Your task to perform on an android device: turn off notifications settings in the gmail app Image 0: 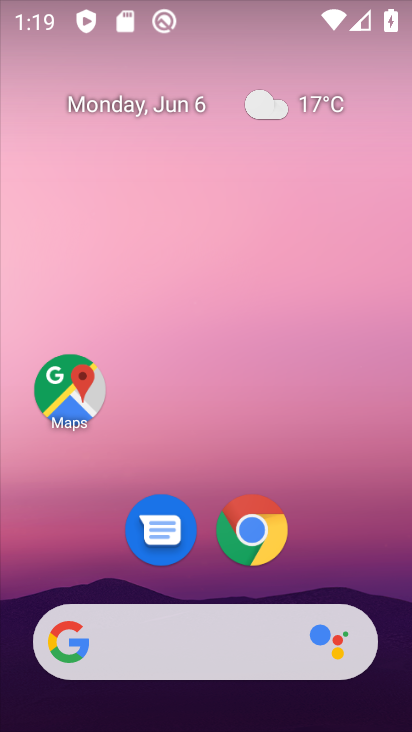
Step 0: drag from (287, 513) to (286, 242)
Your task to perform on an android device: turn off notifications settings in the gmail app Image 1: 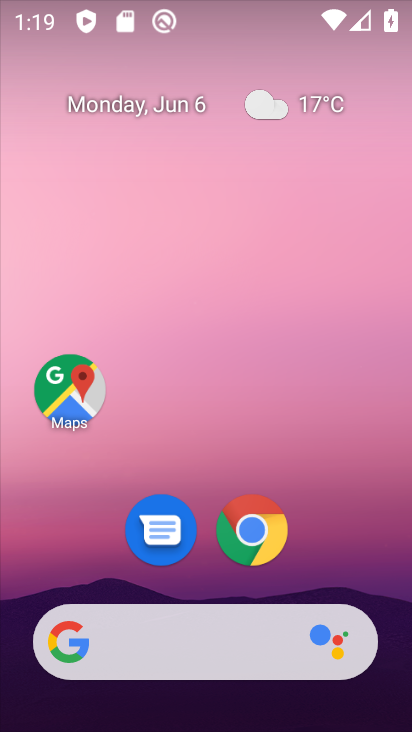
Step 1: drag from (201, 573) to (265, 247)
Your task to perform on an android device: turn off notifications settings in the gmail app Image 2: 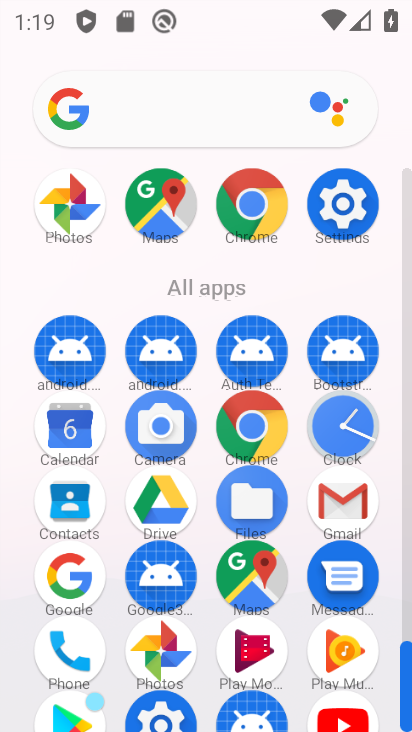
Step 2: click (321, 500)
Your task to perform on an android device: turn off notifications settings in the gmail app Image 3: 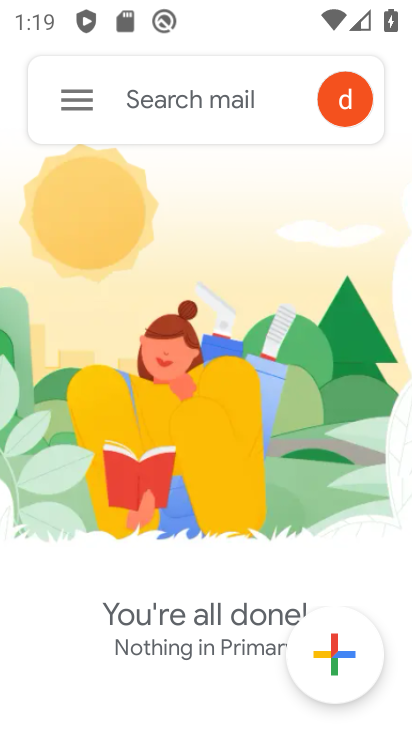
Step 3: click (69, 85)
Your task to perform on an android device: turn off notifications settings in the gmail app Image 4: 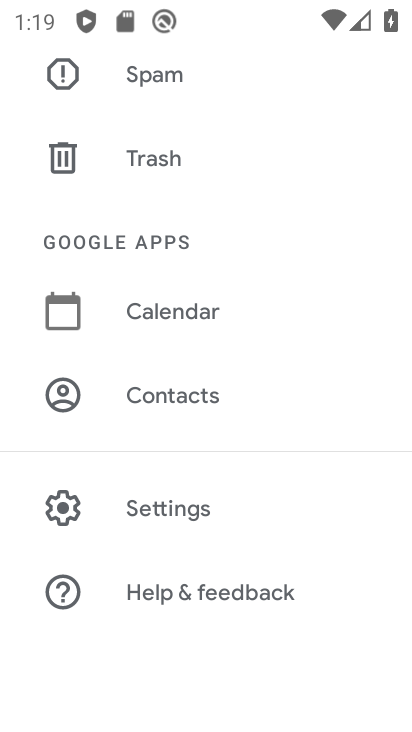
Step 4: click (219, 506)
Your task to perform on an android device: turn off notifications settings in the gmail app Image 5: 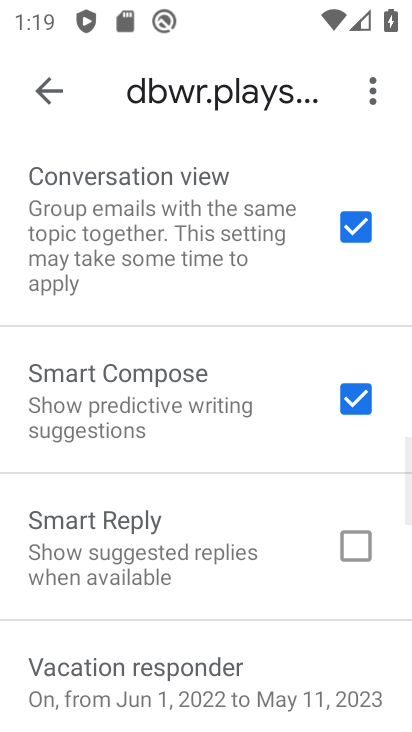
Step 5: drag from (177, 161) to (135, 605)
Your task to perform on an android device: turn off notifications settings in the gmail app Image 6: 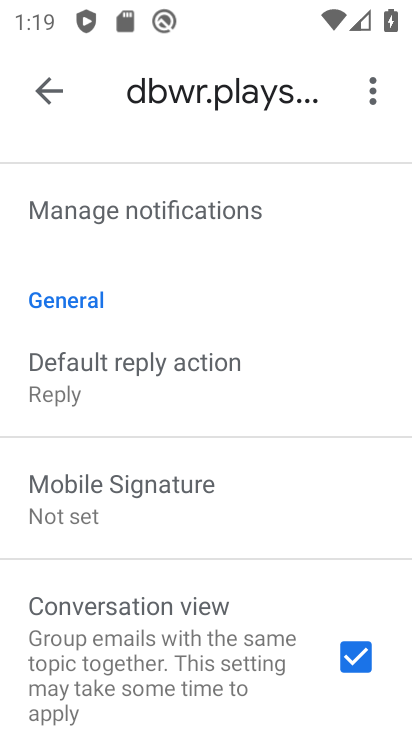
Step 6: drag from (166, 270) to (125, 663)
Your task to perform on an android device: turn off notifications settings in the gmail app Image 7: 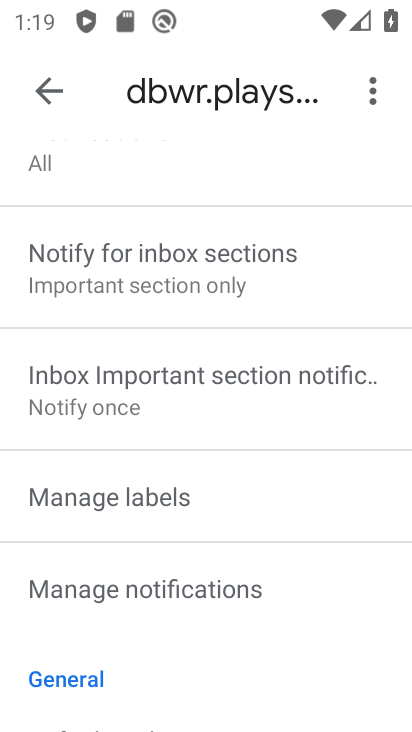
Step 7: drag from (140, 242) to (106, 566)
Your task to perform on an android device: turn off notifications settings in the gmail app Image 8: 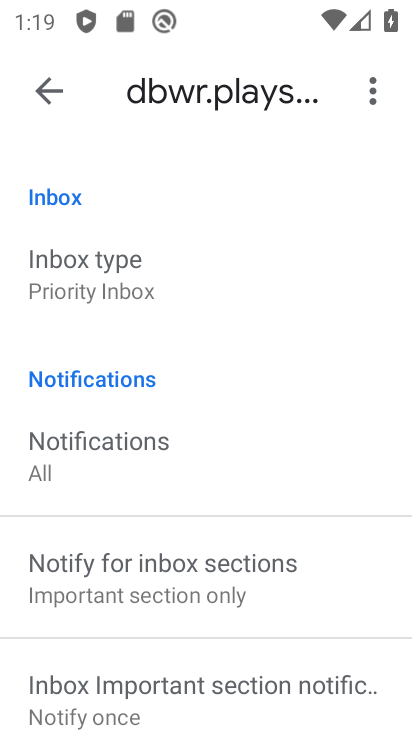
Step 8: click (132, 475)
Your task to perform on an android device: turn off notifications settings in the gmail app Image 9: 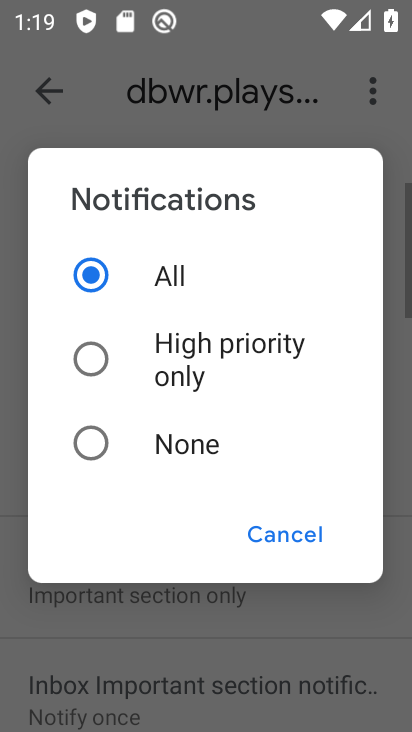
Step 9: click (133, 447)
Your task to perform on an android device: turn off notifications settings in the gmail app Image 10: 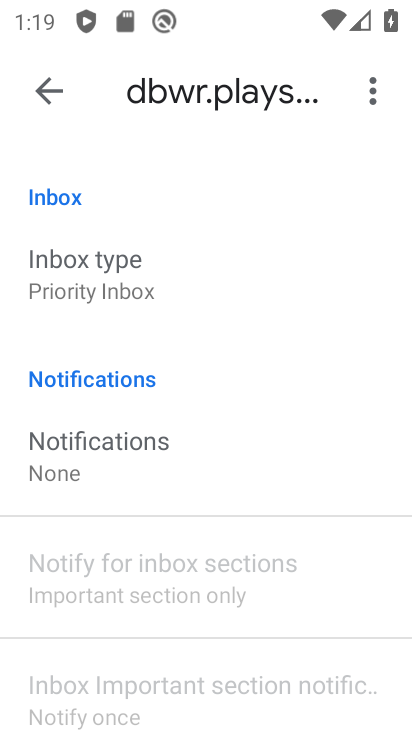
Step 10: task complete